Your task to perform on an android device: What's on my calendar today? Image 0: 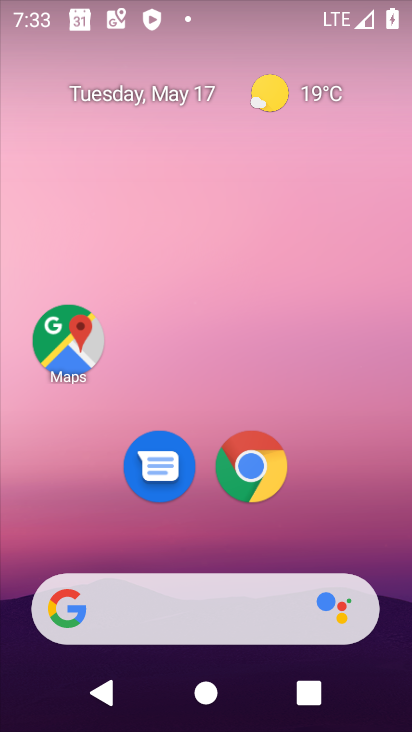
Step 0: press home button
Your task to perform on an android device: What's on my calendar today? Image 1: 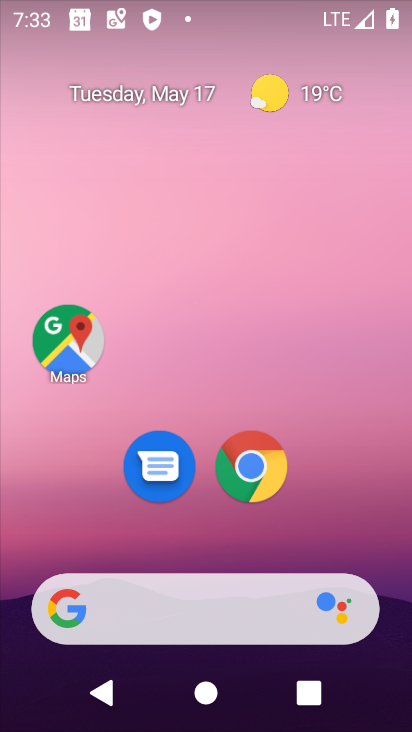
Step 1: drag from (147, 609) to (292, 98)
Your task to perform on an android device: What's on my calendar today? Image 2: 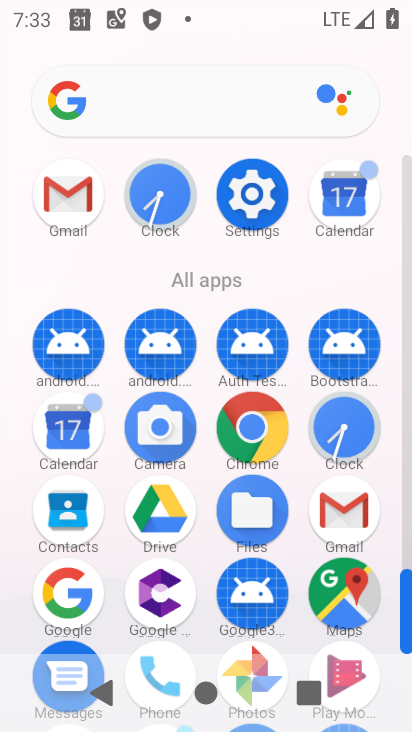
Step 2: click (347, 205)
Your task to perform on an android device: What's on my calendar today? Image 3: 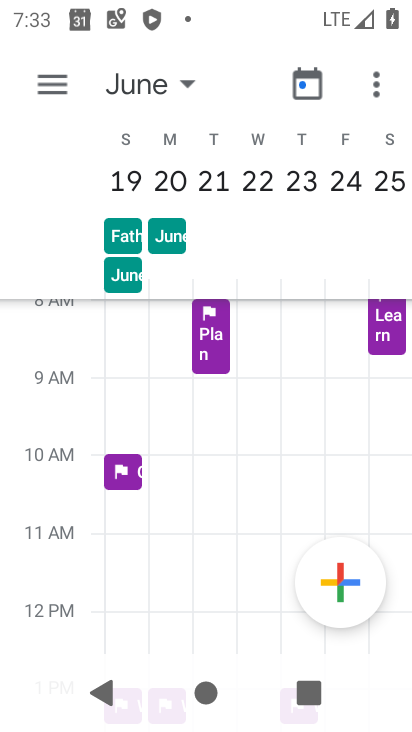
Step 3: click (126, 83)
Your task to perform on an android device: What's on my calendar today? Image 4: 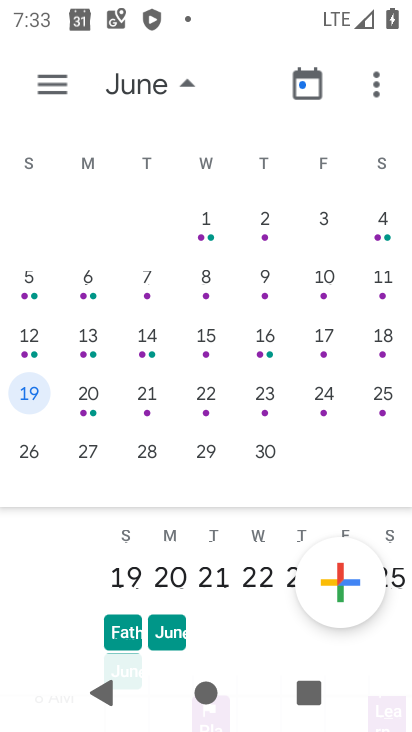
Step 4: click (297, 86)
Your task to perform on an android device: What's on my calendar today? Image 5: 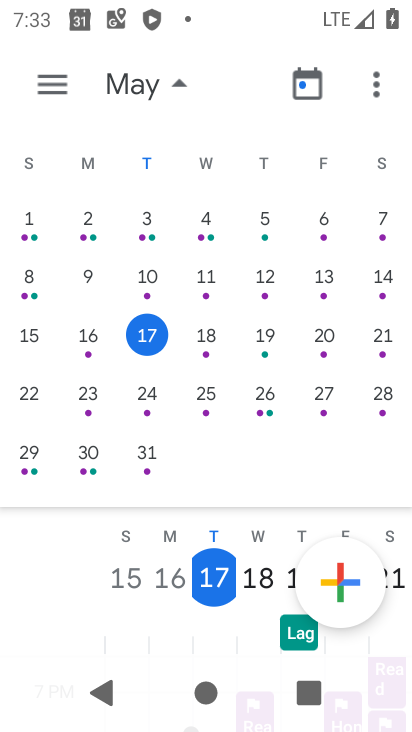
Step 5: click (150, 336)
Your task to perform on an android device: What's on my calendar today? Image 6: 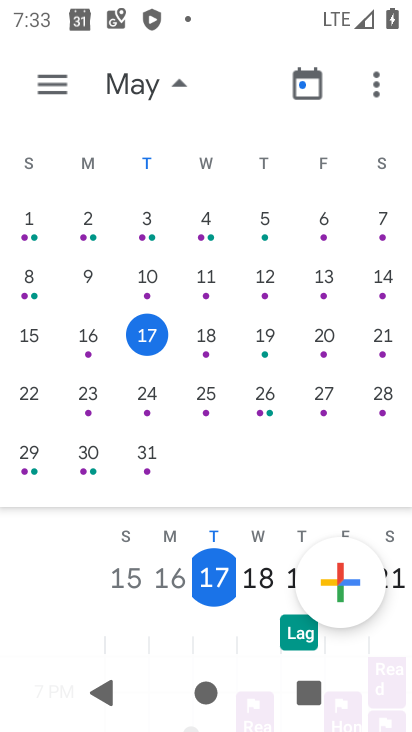
Step 6: click (150, 336)
Your task to perform on an android device: What's on my calendar today? Image 7: 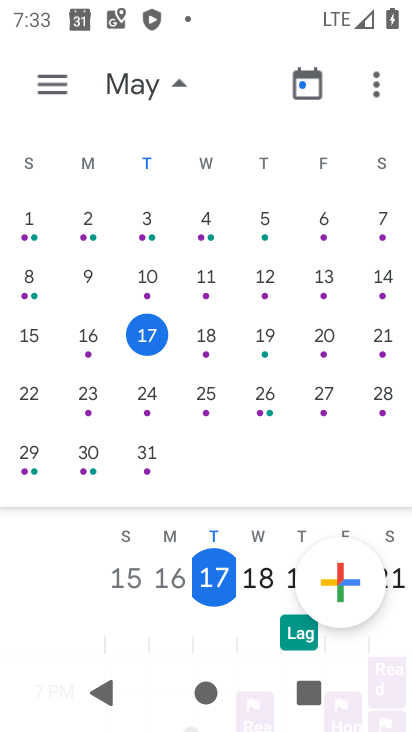
Step 7: click (157, 343)
Your task to perform on an android device: What's on my calendar today? Image 8: 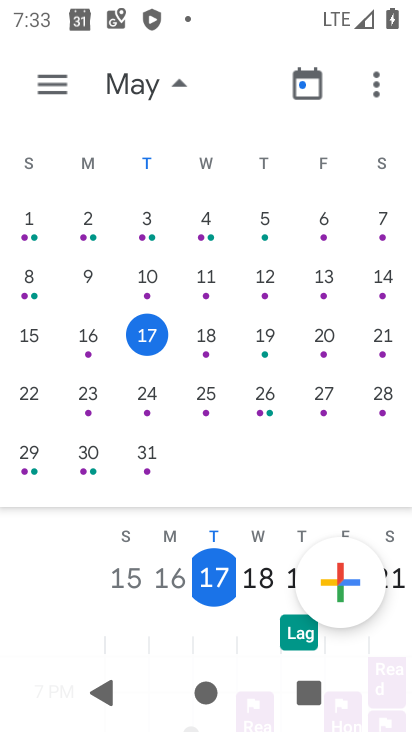
Step 8: click (60, 80)
Your task to perform on an android device: What's on my calendar today? Image 9: 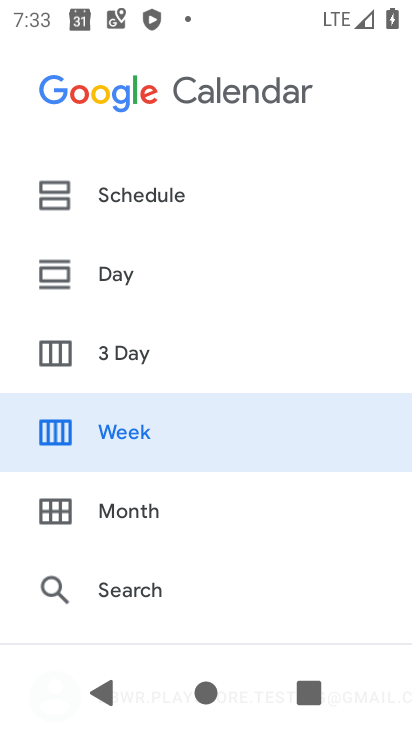
Step 9: click (131, 199)
Your task to perform on an android device: What's on my calendar today? Image 10: 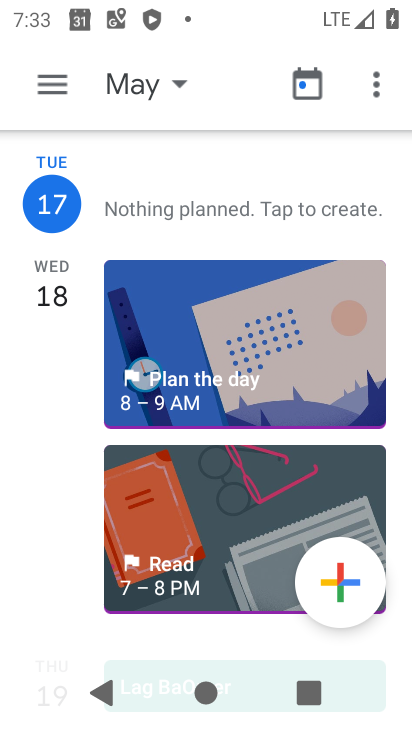
Step 10: task complete